Your task to perform on an android device: empty trash in google photos Image 0: 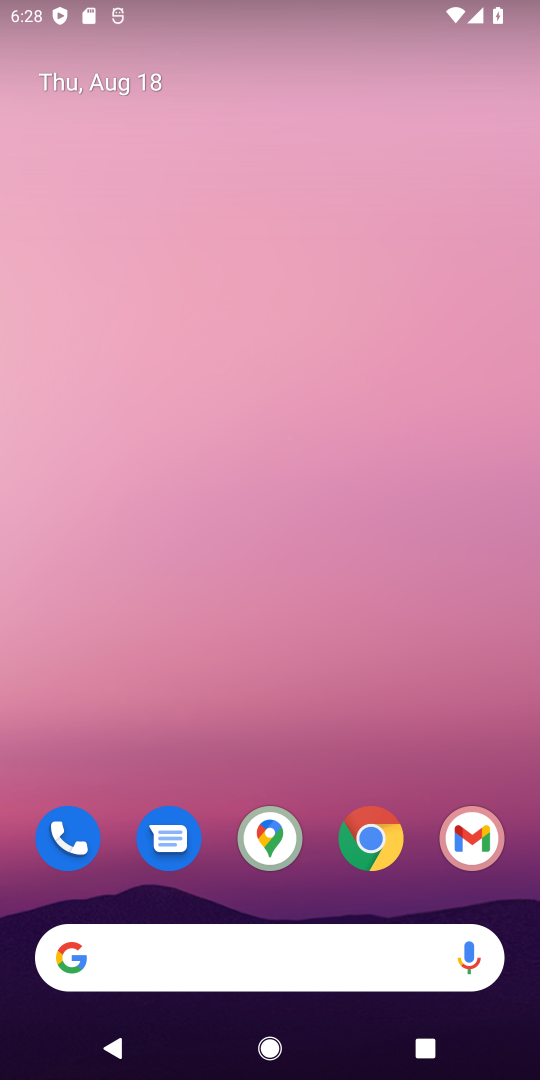
Step 0: press home button
Your task to perform on an android device: empty trash in google photos Image 1: 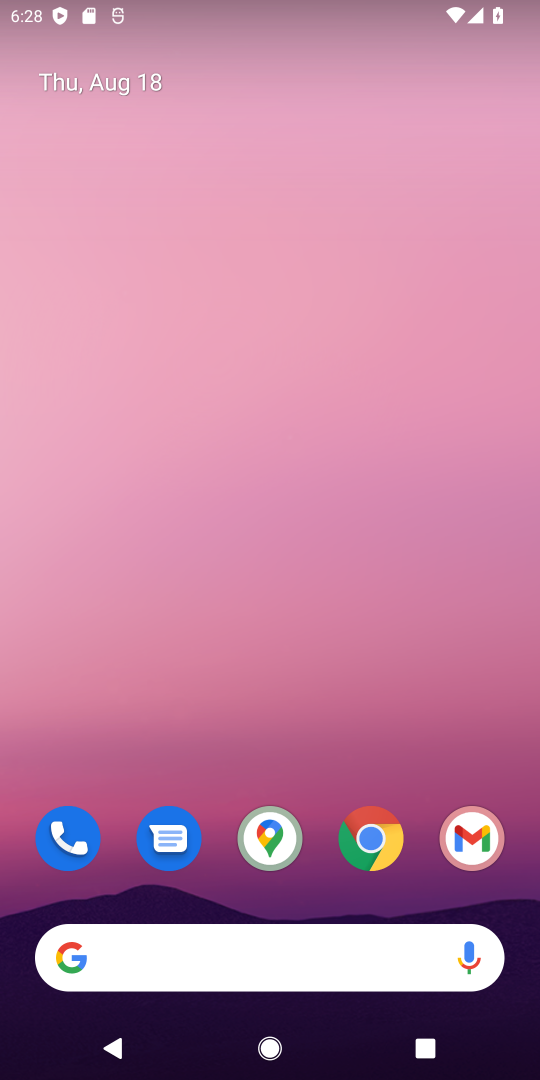
Step 1: drag from (340, 901) to (394, 21)
Your task to perform on an android device: empty trash in google photos Image 2: 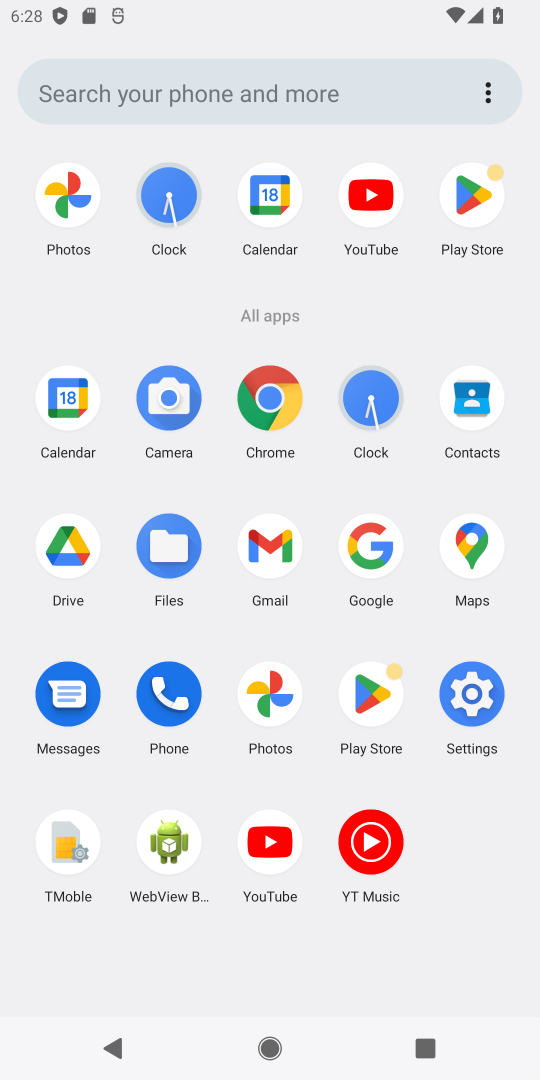
Step 2: click (257, 698)
Your task to perform on an android device: empty trash in google photos Image 3: 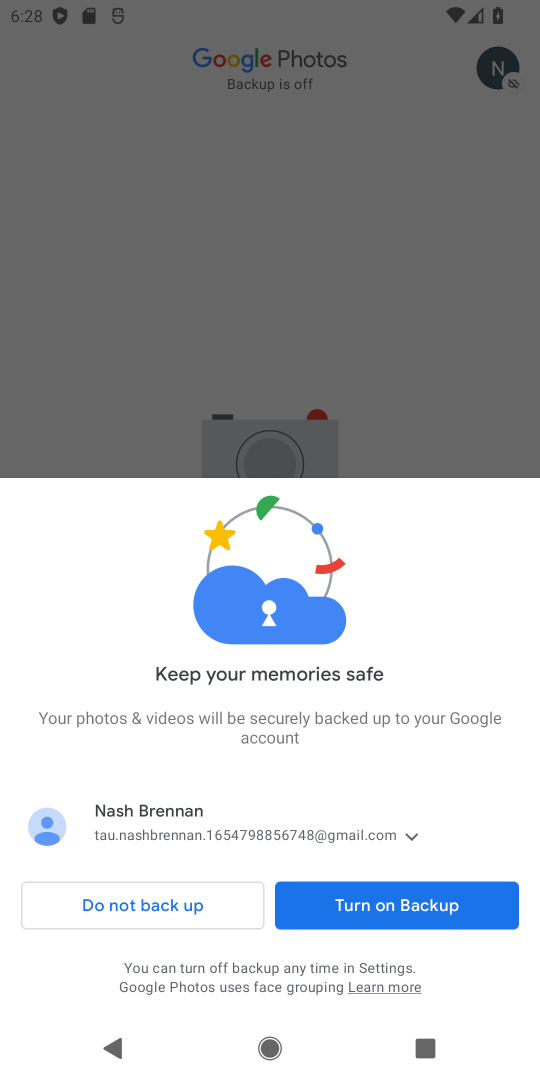
Step 3: click (133, 910)
Your task to perform on an android device: empty trash in google photos Image 4: 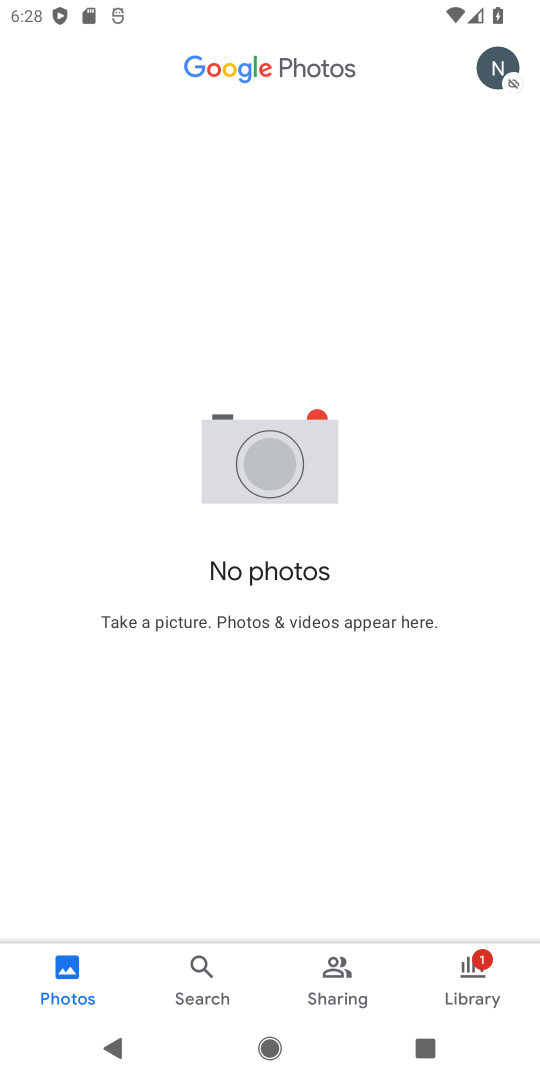
Step 4: click (475, 984)
Your task to perform on an android device: empty trash in google photos Image 5: 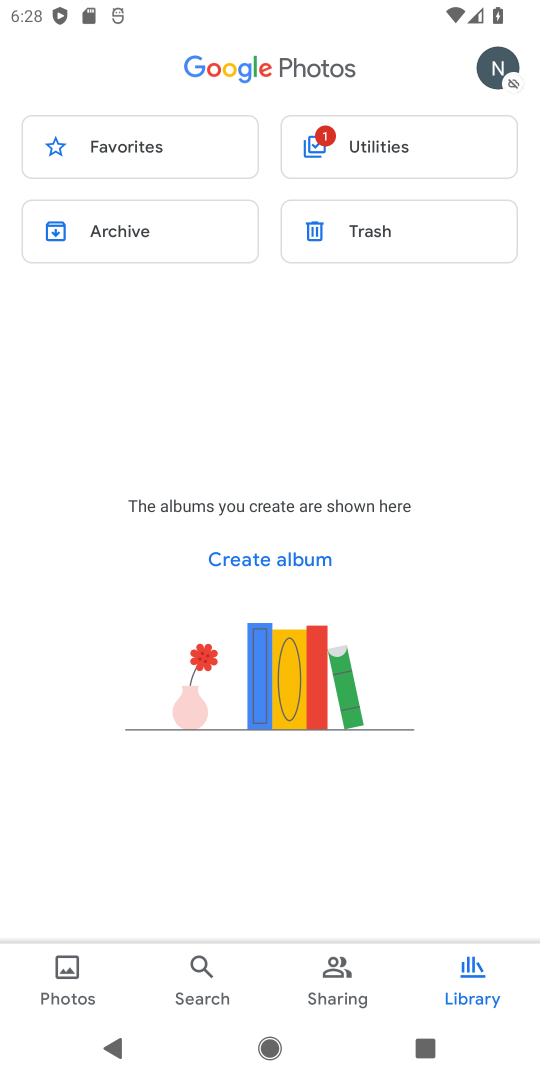
Step 5: click (317, 233)
Your task to perform on an android device: empty trash in google photos Image 6: 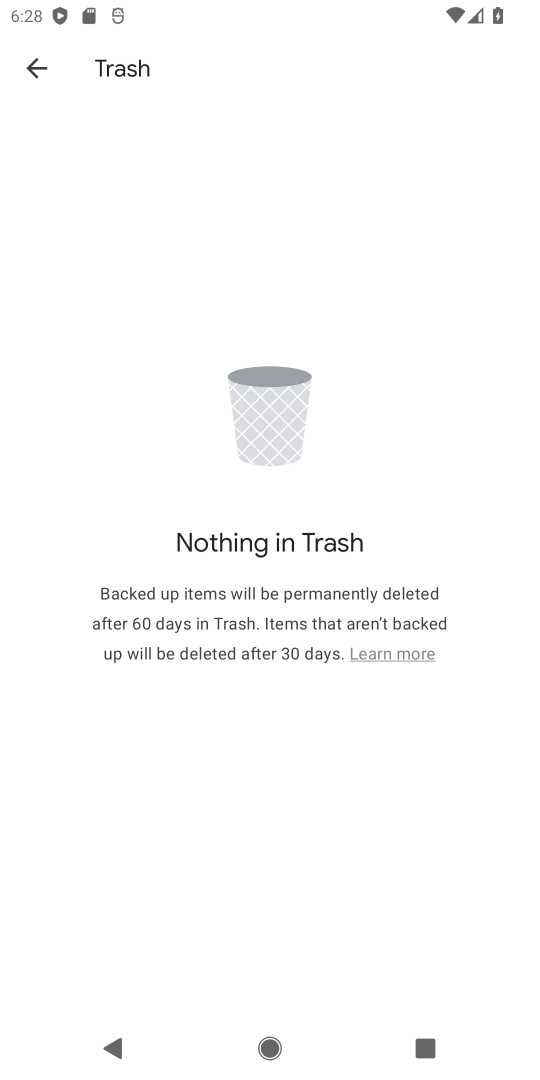
Step 6: task complete